Your task to perform on an android device: install app "ColorNote Notepad Notes" Image 0: 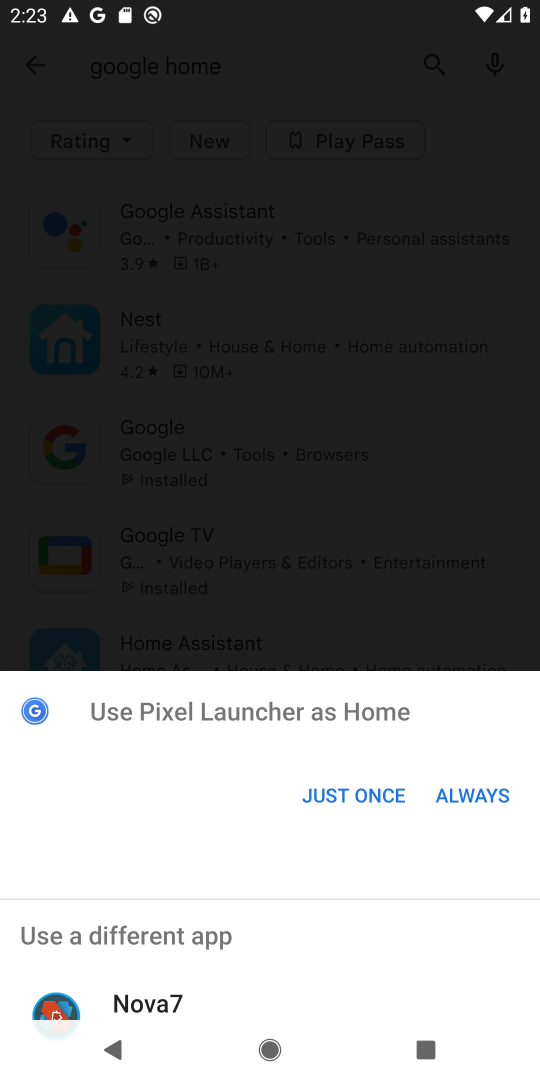
Step 0: press home button
Your task to perform on an android device: install app "ColorNote Notepad Notes" Image 1: 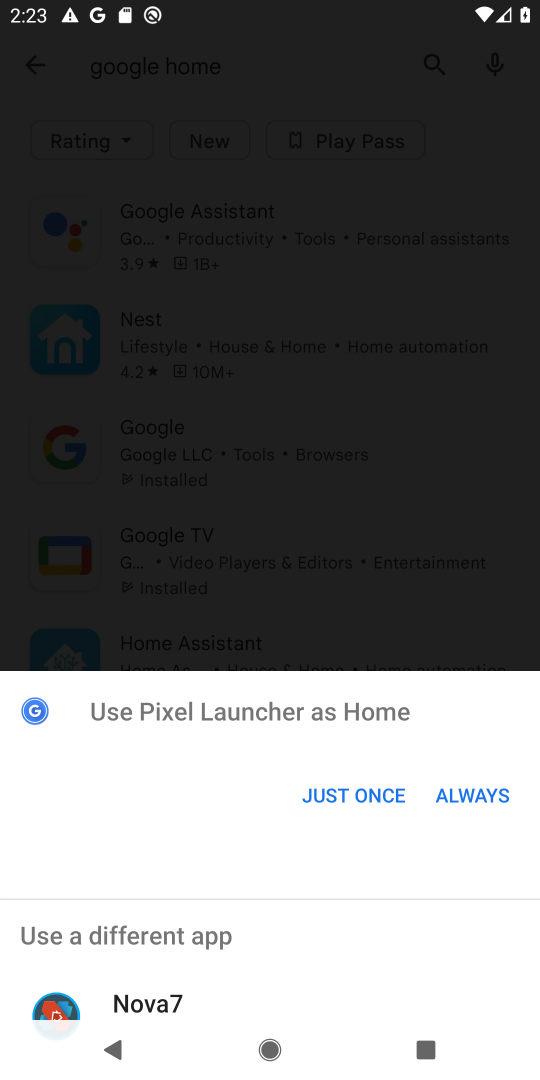
Step 1: click (372, 790)
Your task to perform on an android device: install app "ColorNote Notepad Notes" Image 2: 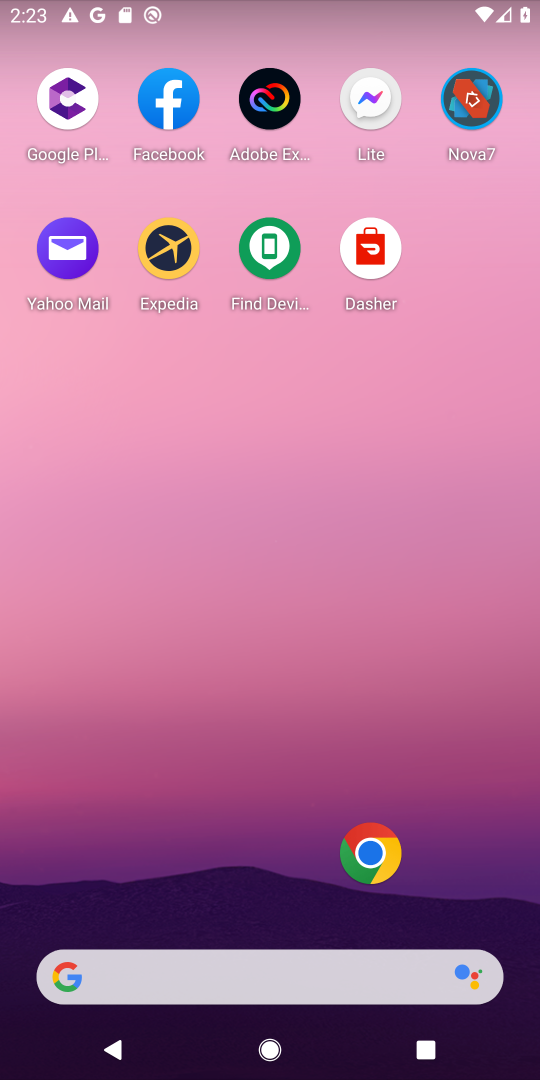
Step 2: drag from (523, 967) to (495, 357)
Your task to perform on an android device: install app "ColorNote Notepad Notes" Image 3: 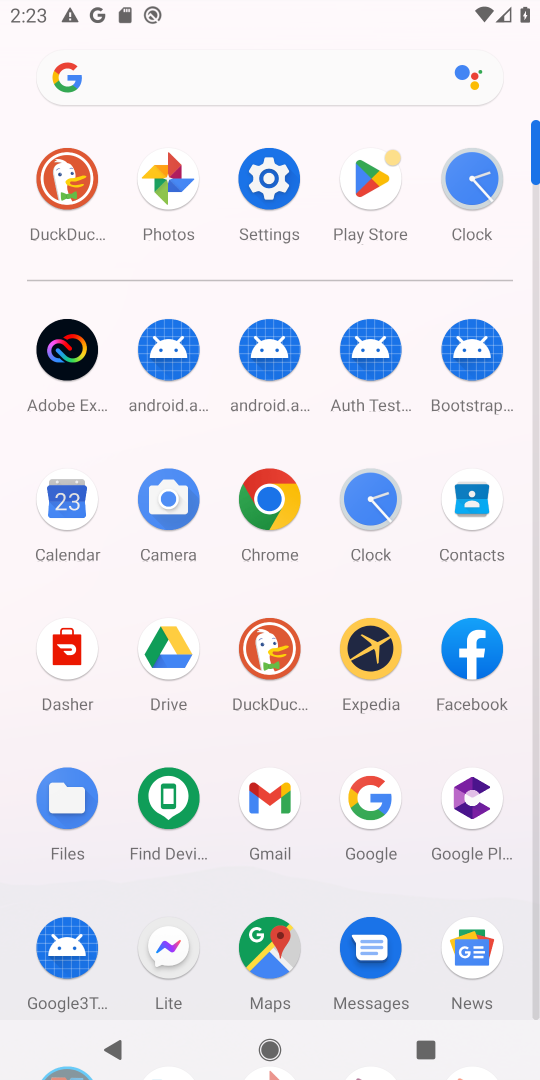
Step 3: click (536, 946)
Your task to perform on an android device: install app "ColorNote Notepad Notes" Image 4: 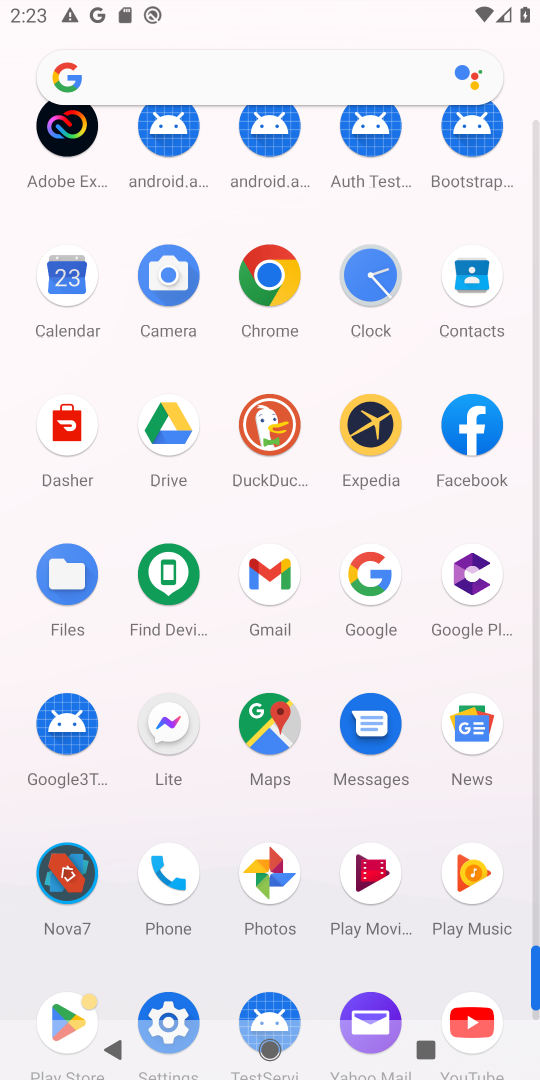
Step 4: click (71, 1007)
Your task to perform on an android device: install app "ColorNote Notepad Notes" Image 5: 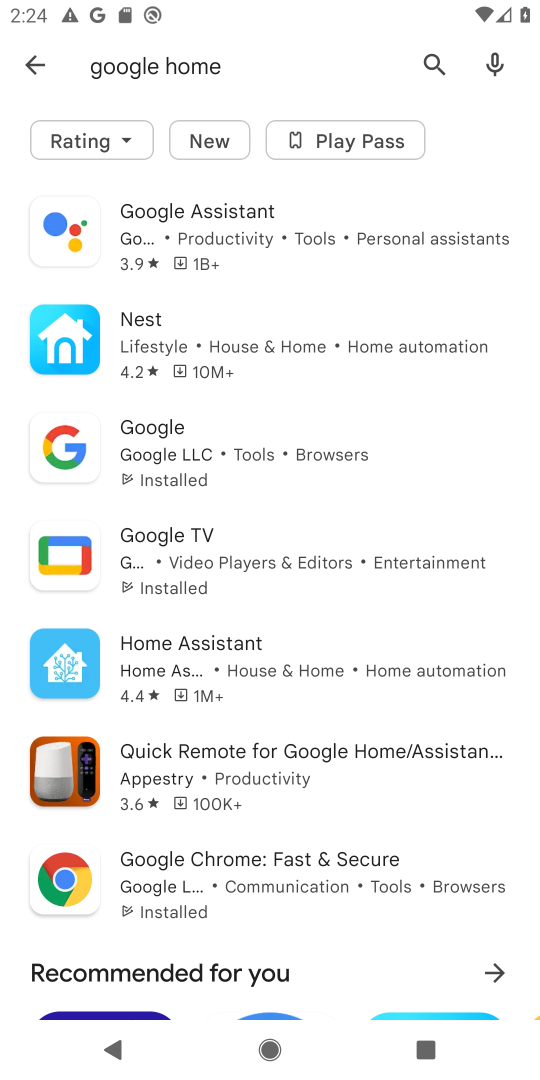
Step 5: click (434, 64)
Your task to perform on an android device: install app "ColorNote Notepad Notes" Image 6: 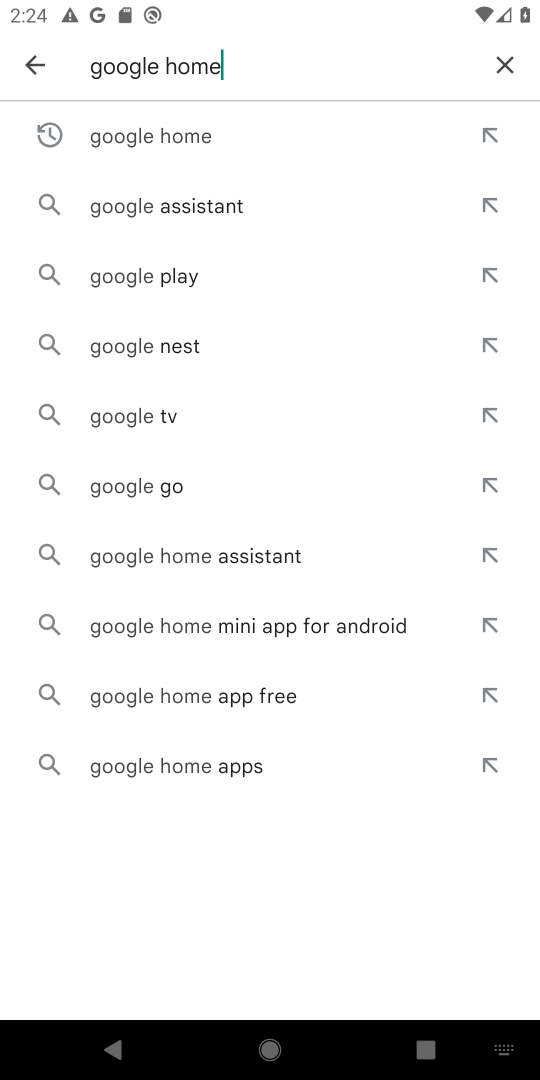
Step 6: click (505, 63)
Your task to perform on an android device: install app "ColorNote Notepad Notes" Image 7: 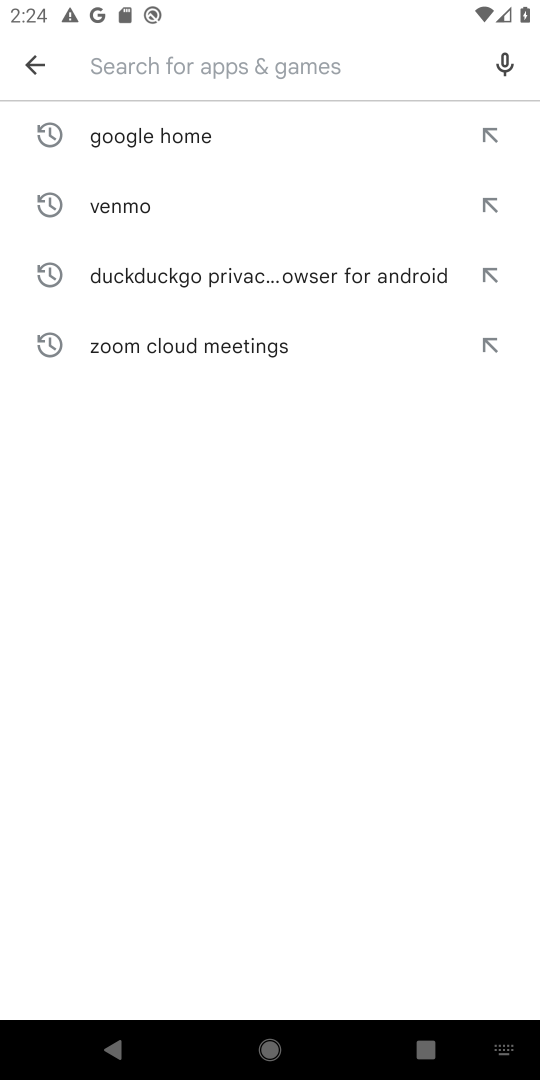
Step 7: type "ColorNote Notepad Notes"
Your task to perform on an android device: install app "ColorNote Notepad Notes" Image 8: 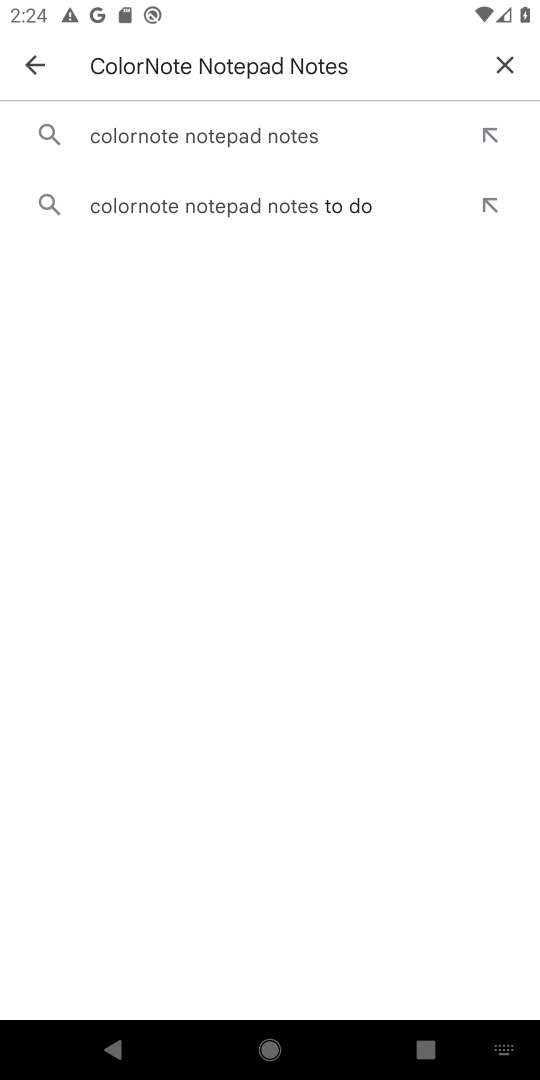
Step 8: click (155, 136)
Your task to perform on an android device: install app "ColorNote Notepad Notes" Image 9: 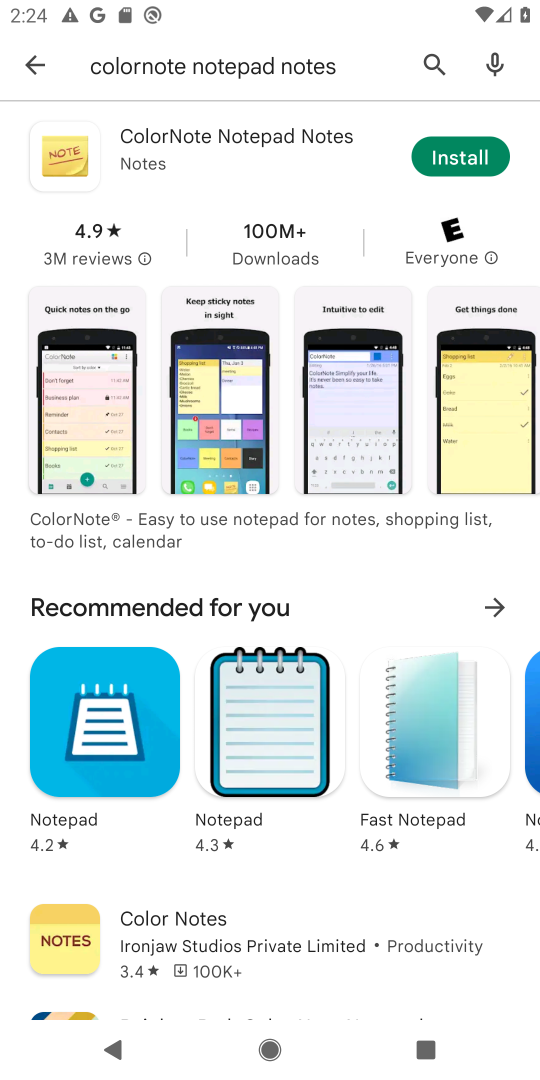
Step 9: click (464, 156)
Your task to perform on an android device: install app "ColorNote Notepad Notes" Image 10: 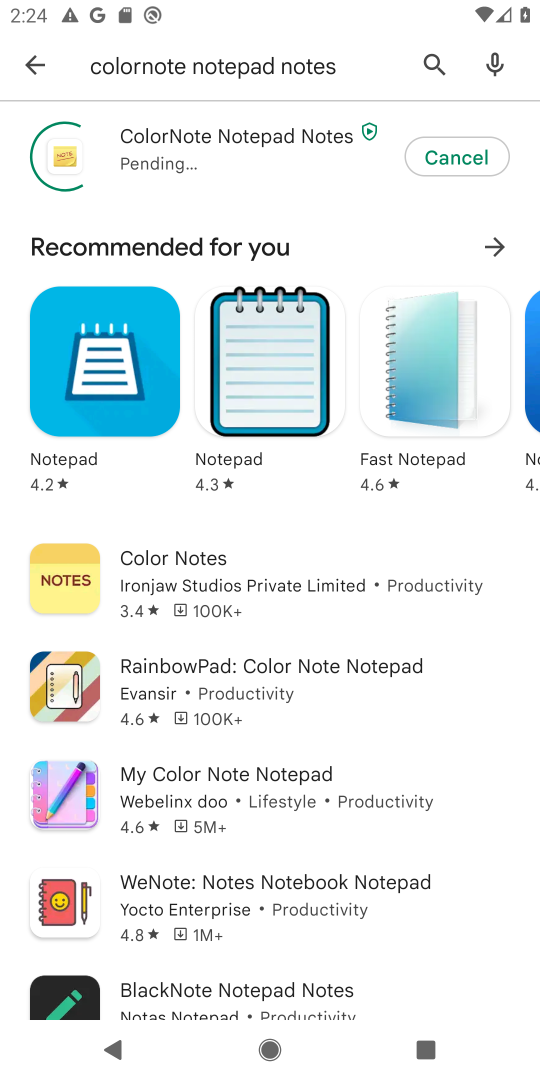
Step 10: click (173, 140)
Your task to perform on an android device: install app "ColorNote Notepad Notes" Image 11: 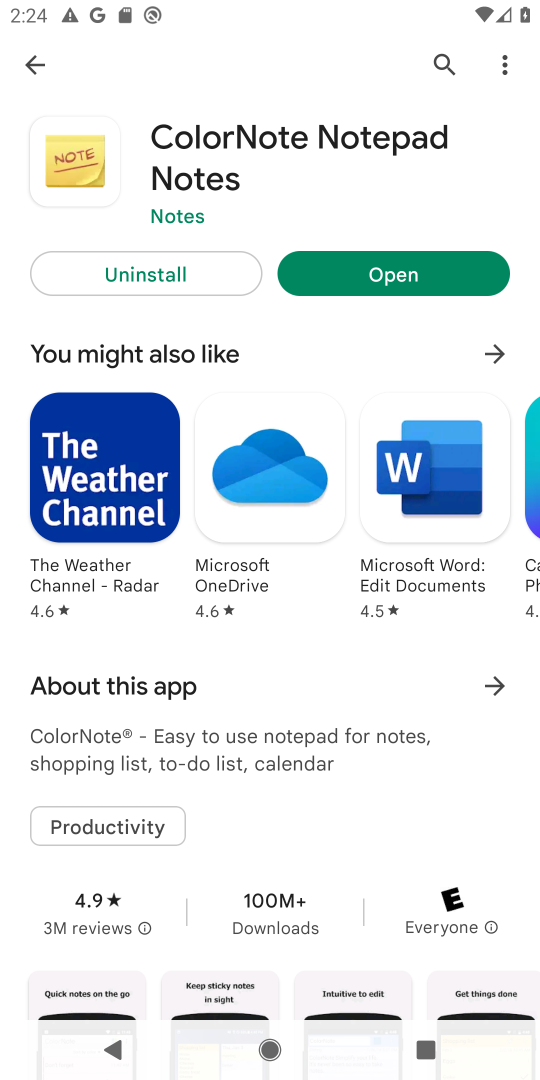
Step 11: click (394, 277)
Your task to perform on an android device: install app "ColorNote Notepad Notes" Image 12: 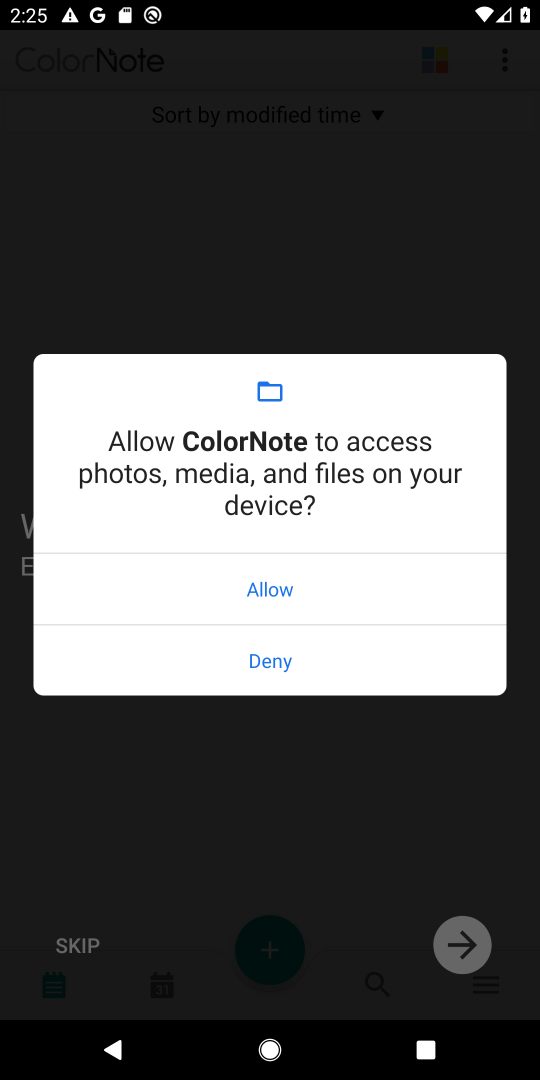
Step 12: click (274, 582)
Your task to perform on an android device: install app "ColorNote Notepad Notes" Image 13: 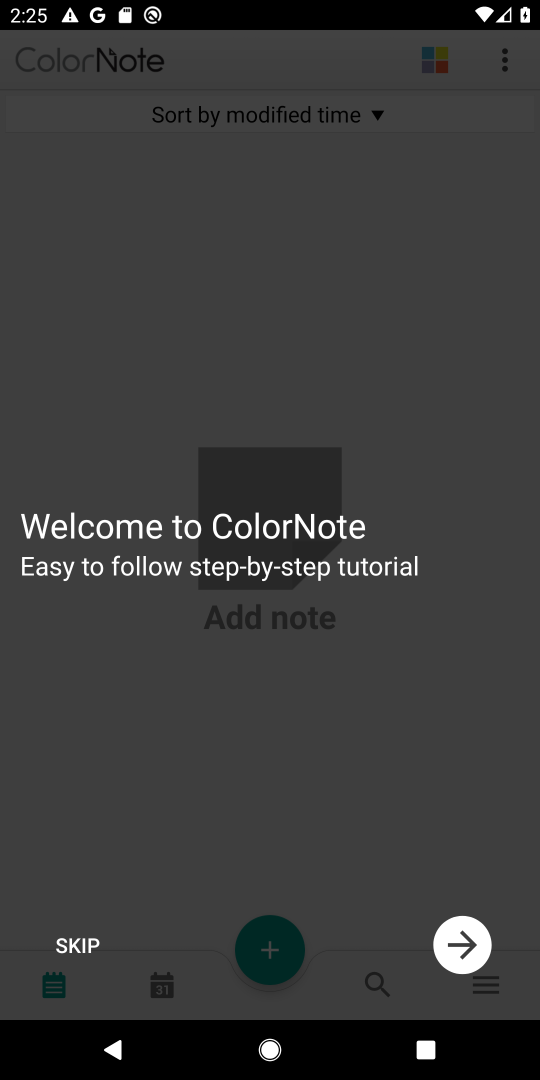
Step 13: click (87, 944)
Your task to perform on an android device: install app "ColorNote Notepad Notes" Image 14: 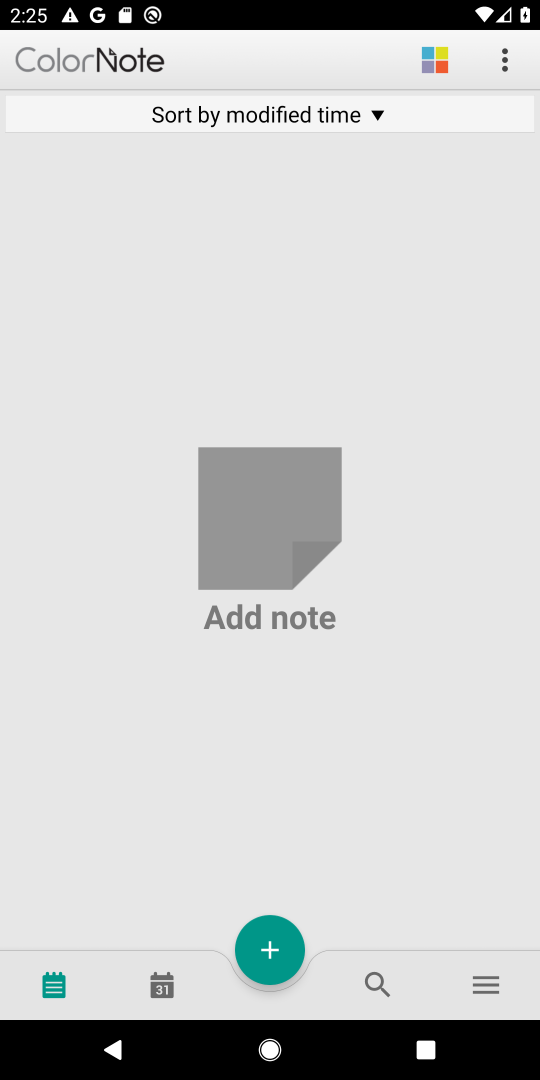
Step 14: task complete